Your task to perform on an android device: turn notification dots off Image 0: 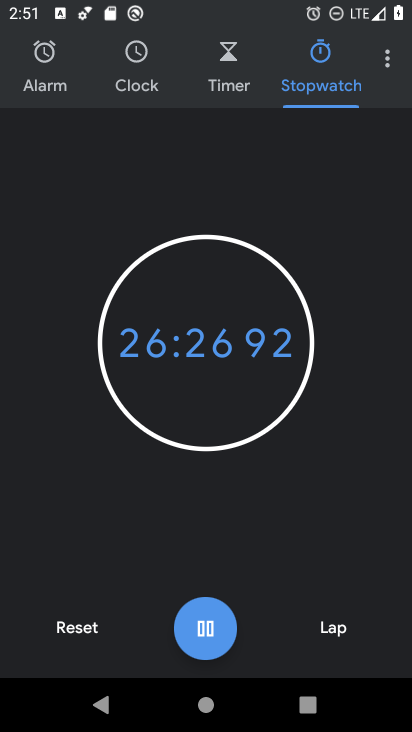
Step 0: press home button
Your task to perform on an android device: turn notification dots off Image 1: 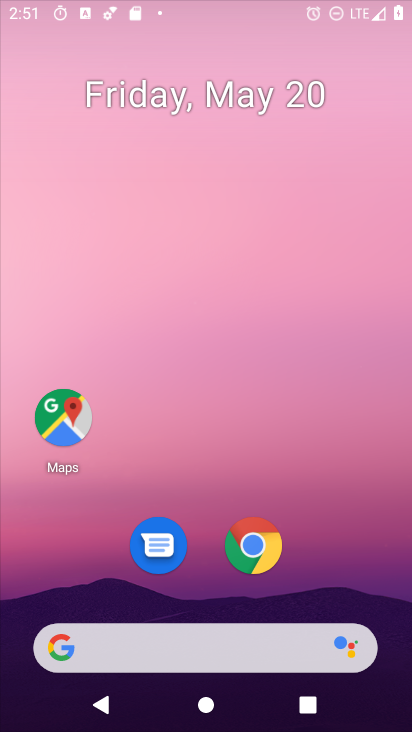
Step 1: drag from (242, 596) to (352, 9)
Your task to perform on an android device: turn notification dots off Image 2: 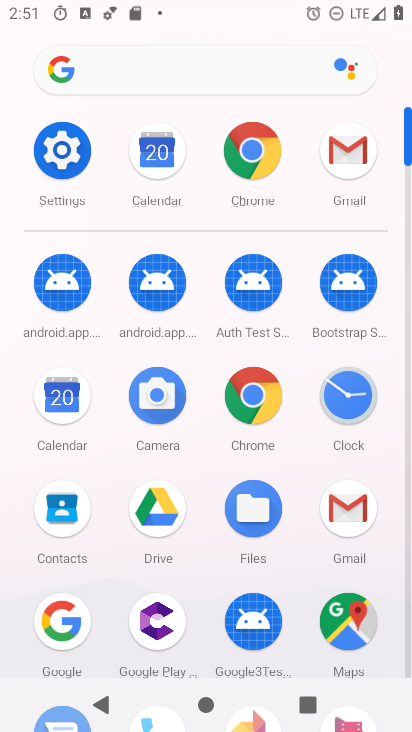
Step 2: click (74, 150)
Your task to perform on an android device: turn notification dots off Image 3: 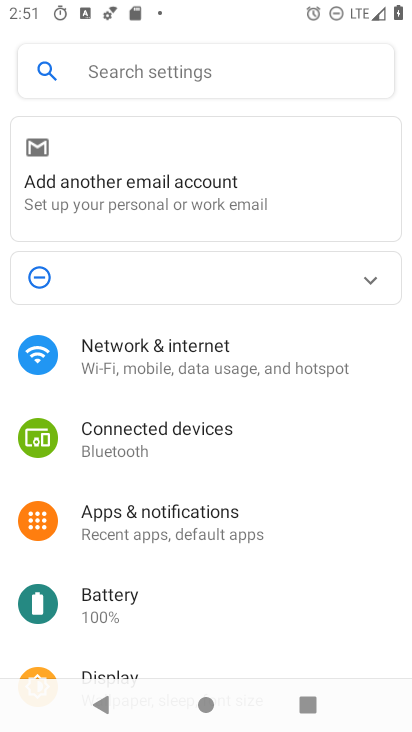
Step 3: click (227, 533)
Your task to perform on an android device: turn notification dots off Image 4: 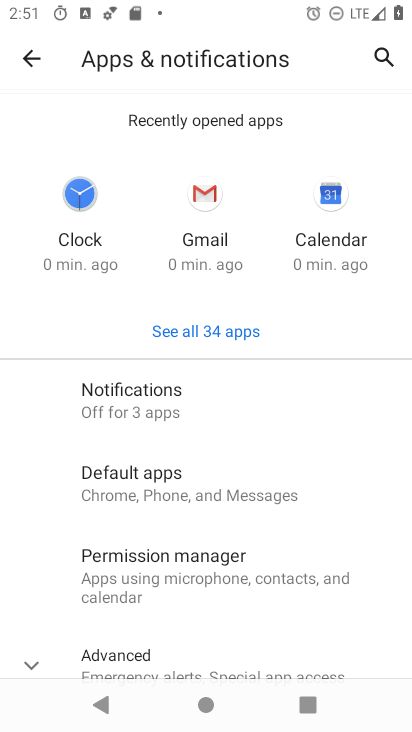
Step 4: drag from (218, 613) to (312, 91)
Your task to perform on an android device: turn notification dots off Image 5: 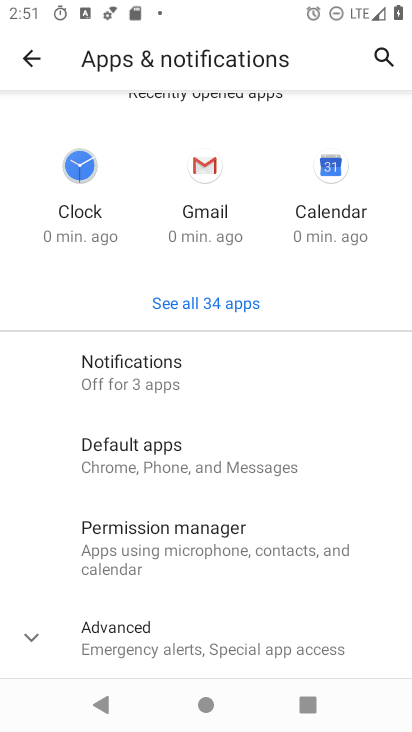
Step 5: click (147, 389)
Your task to perform on an android device: turn notification dots off Image 6: 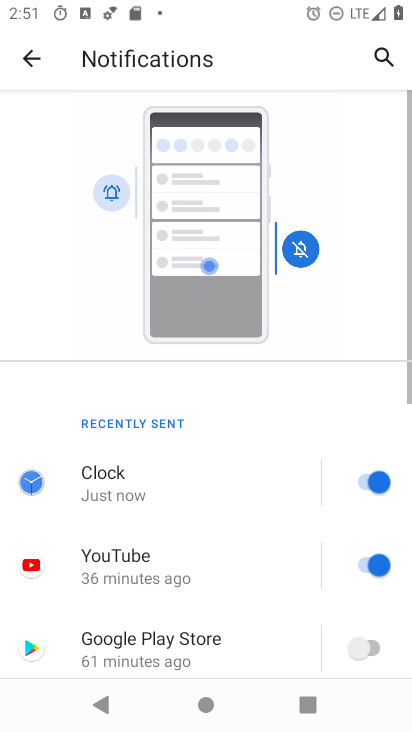
Step 6: drag from (241, 611) to (329, 60)
Your task to perform on an android device: turn notification dots off Image 7: 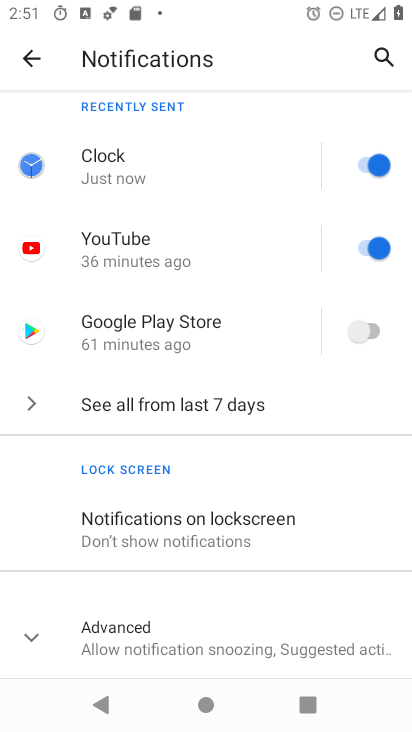
Step 7: click (222, 638)
Your task to perform on an android device: turn notification dots off Image 8: 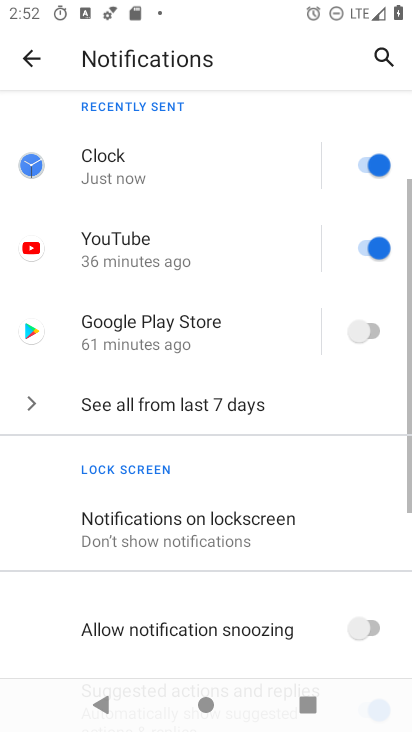
Step 8: task complete